Your task to perform on an android device: Search for the most popular coffee table on Crate & Barrel Image 0: 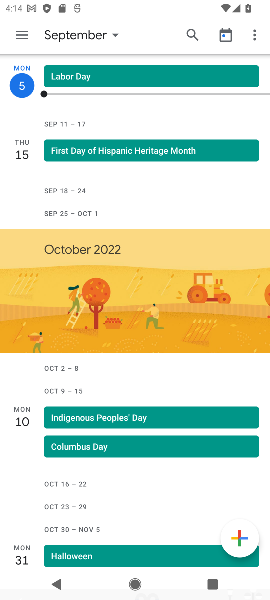
Step 0: press home button
Your task to perform on an android device: Search for the most popular coffee table on Crate & Barrel Image 1: 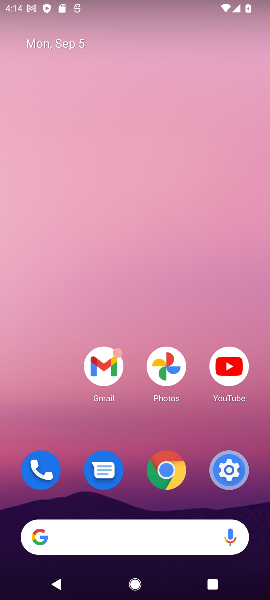
Step 1: click (129, 530)
Your task to perform on an android device: Search for the most popular coffee table on Crate & Barrel Image 2: 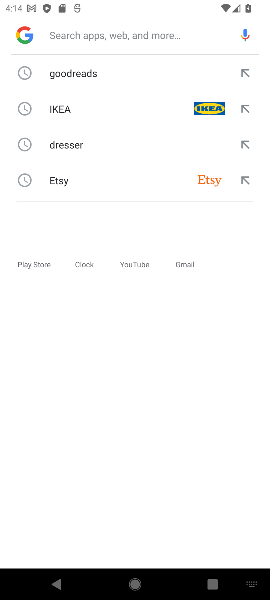
Step 2: type "crate & barrel"
Your task to perform on an android device: Search for the most popular coffee table on Crate & Barrel Image 3: 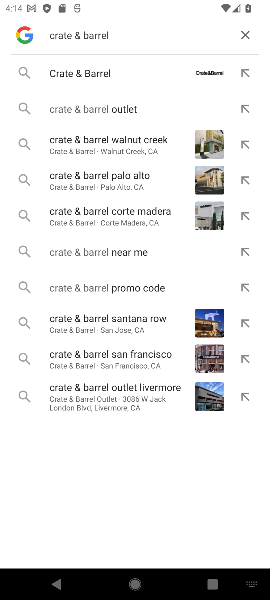
Step 3: click (119, 81)
Your task to perform on an android device: Search for the most popular coffee table on Crate & Barrel Image 4: 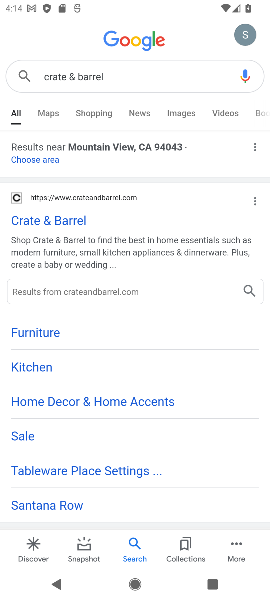
Step 4: click (61, 215)
Your task to perform on an android device: Search for the most popular coffee table on Crate & Barrel Image 5: 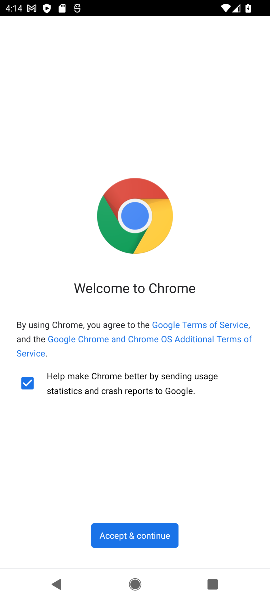
Step 5: click (145, 535)
Your task to perform on an android device: Search for the most popular coffee table on Crate & Barrel Image 6: 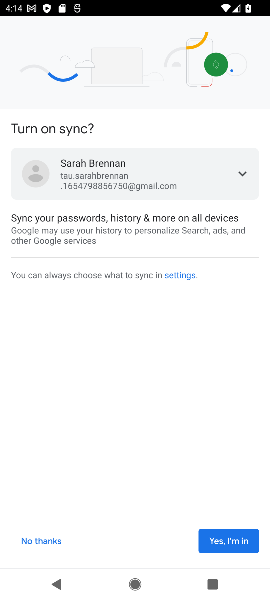
Step 6: click (208, 535)
Your task to perform on an android device: Search for the most popular coffee table on Crate & Barrel Image 7: 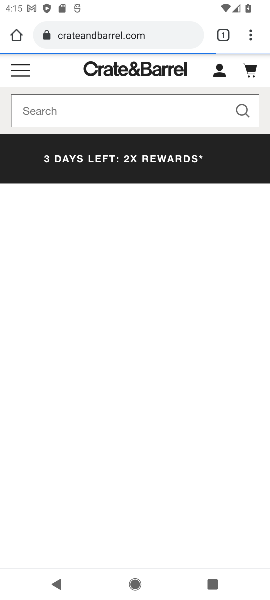
Step 7: click (172, 100)
Your task to perform on an android device: Search for the most popular coffee table on Crate & Barrel Image 8: 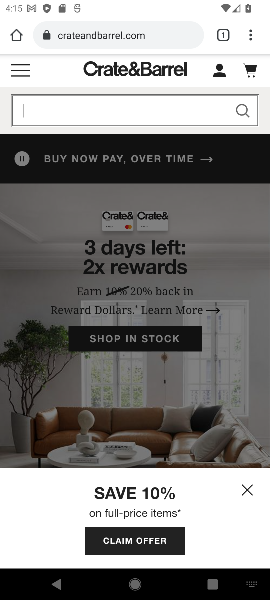
Step 8: click (217, 106)
Your task to perform on an android device: Search for the most popular coffee table on Crate & Barrel Image 9: 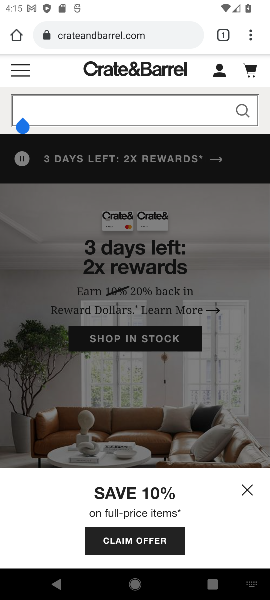
Step 9: type "coffee table"
Your task to perform on an android device: Search for the most popular coffee table on Crate & Barrel Image 10: 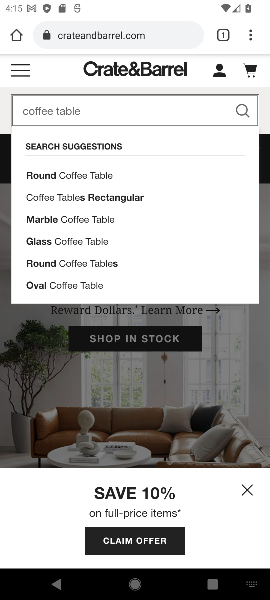
Step 10: press enter
Your task to perform on an android device: Search for the most popular coffee table on Crate & Barrel Image 11: 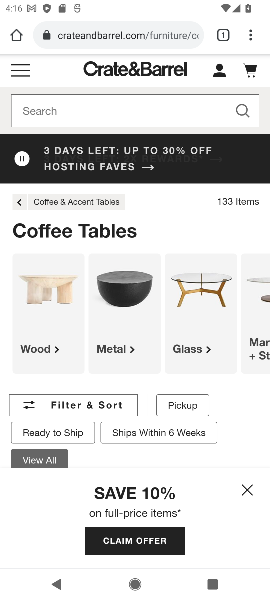
Step 11: click (67, 400)
Your task to perform on an android device: Search for the most popular coffee table on Crate & Barrel Image 12: 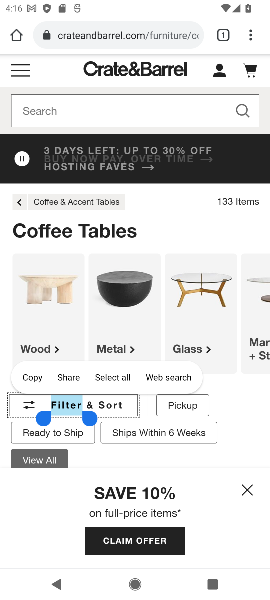
Step 12: click (37, 400)
Your task to perform on an android device: Search for the most popular coffee table on Crate & Barrel Image 13: 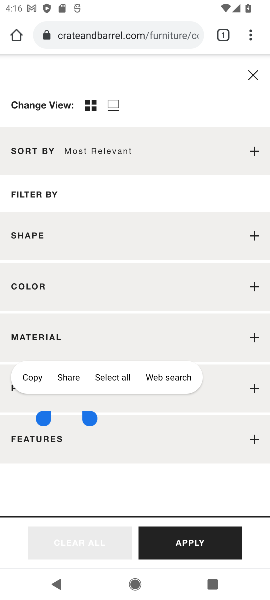
Step 13: click (190, 534)
Your task to perform on an android device: Search for the most popular coffee table on Crate & Barrel Image 14: 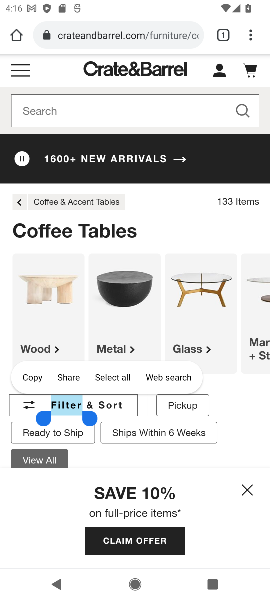
Step 14: drag from (163, 241) to (193, 9)
Your task to perform on an android device: Search for the most popular coffee table on Crate & Barrel Image 15: 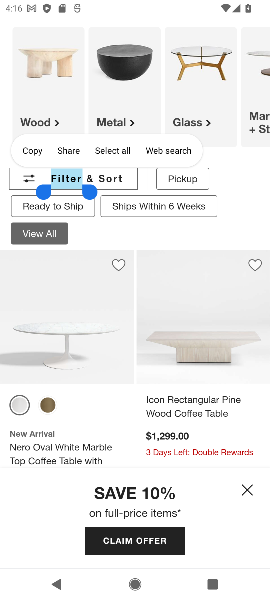
Step 15: click (210, 232)
Your task to perform on an android device: Search for the most popular coffee table on Crate & Barrel Image 16: 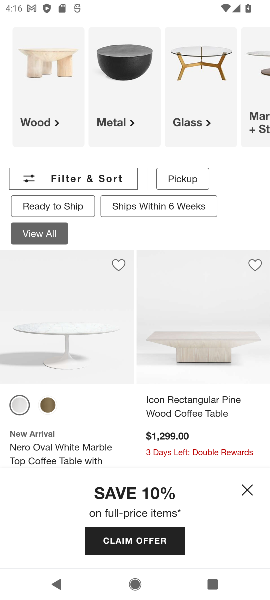
Step 16: task complete